Your task to perform on an android device: open app "Messenger Lite" (install if not already installed) Image 0: 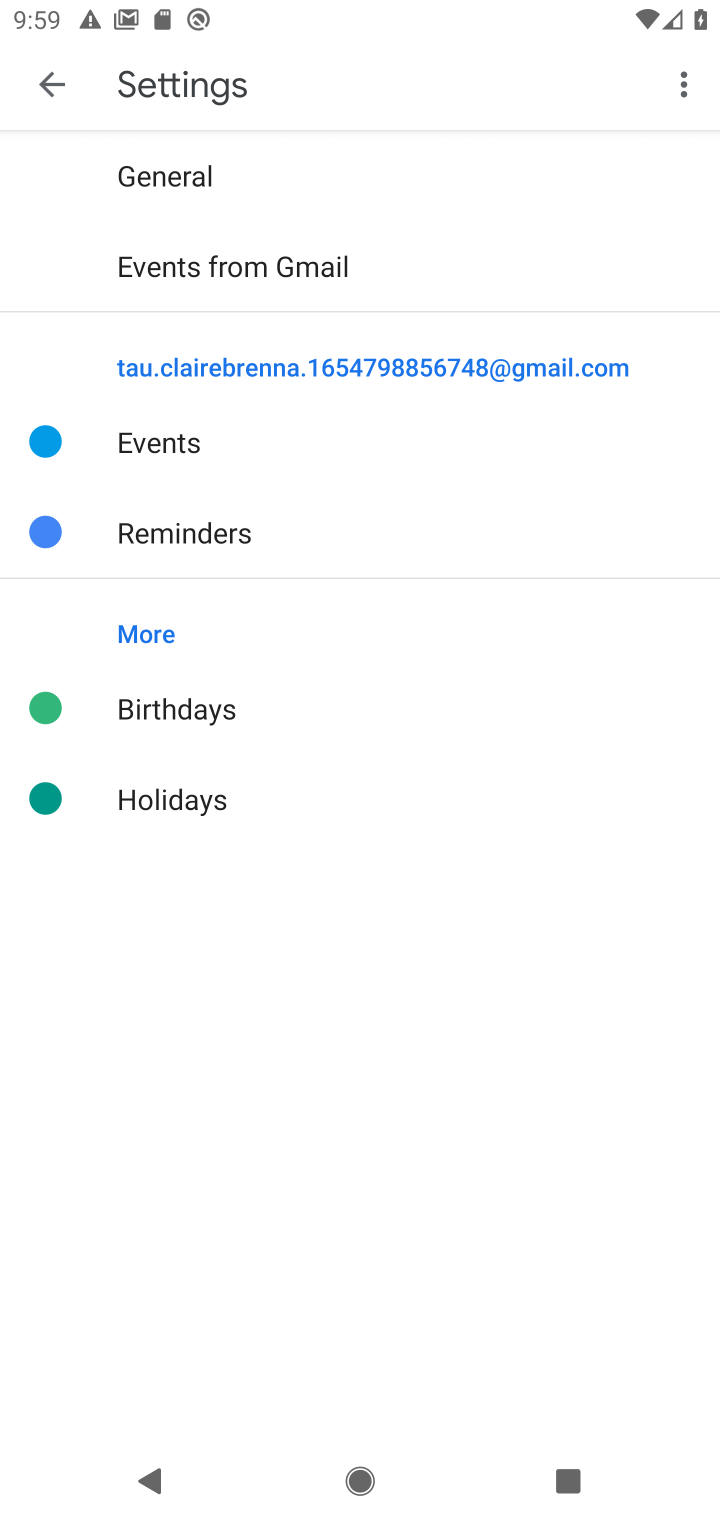
Step 0: press home button
Your task to perform on an android device: open app "Messenger Lite" (install if not already installed) Image 1: 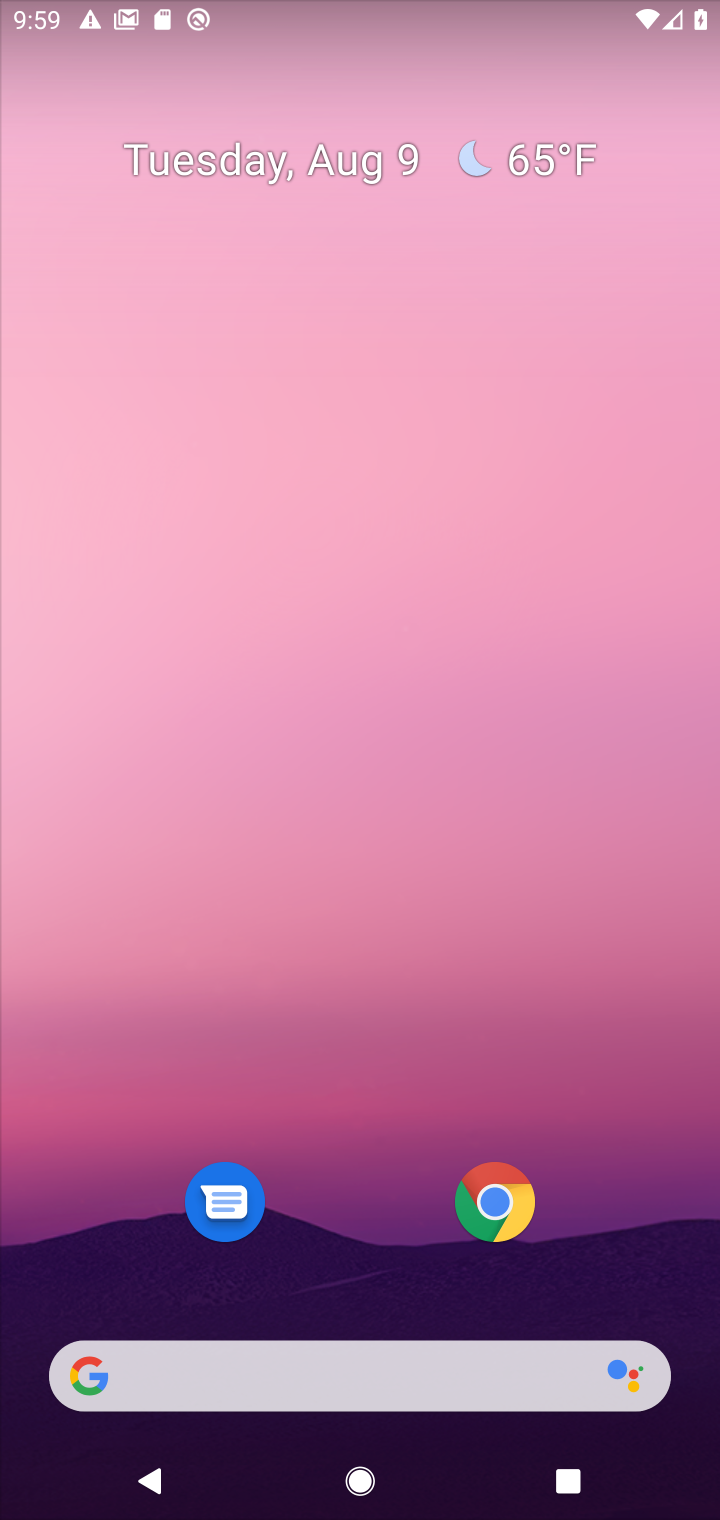
Step 1: drag from (381, 1386) to (345, 155)
Your task to perform on an android device: open app "Messenger Lite" (install if not already installed) Image 2: 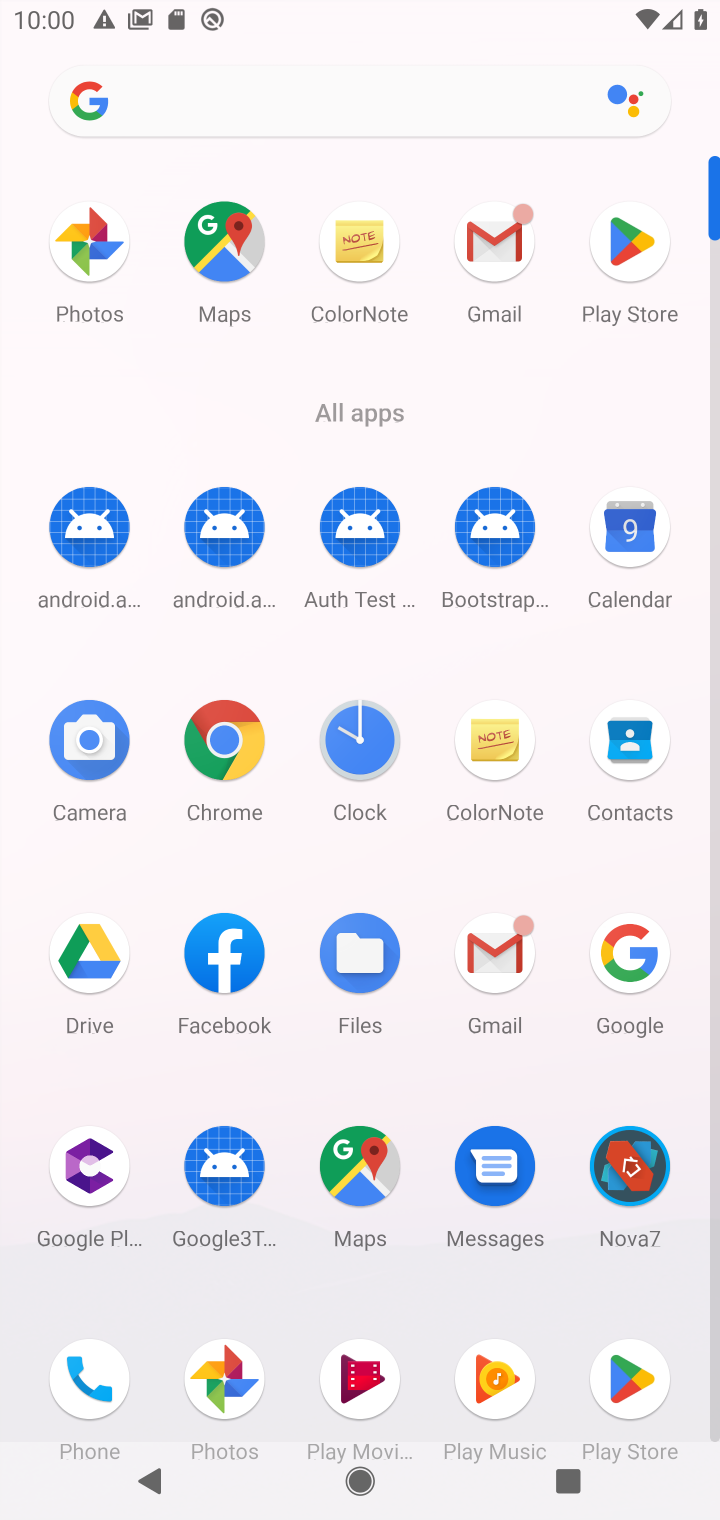
Step 2: click (605, 1373)
Your task to perform on an android device: open app "Messenger Lite" (install if not already installed) Image 3: 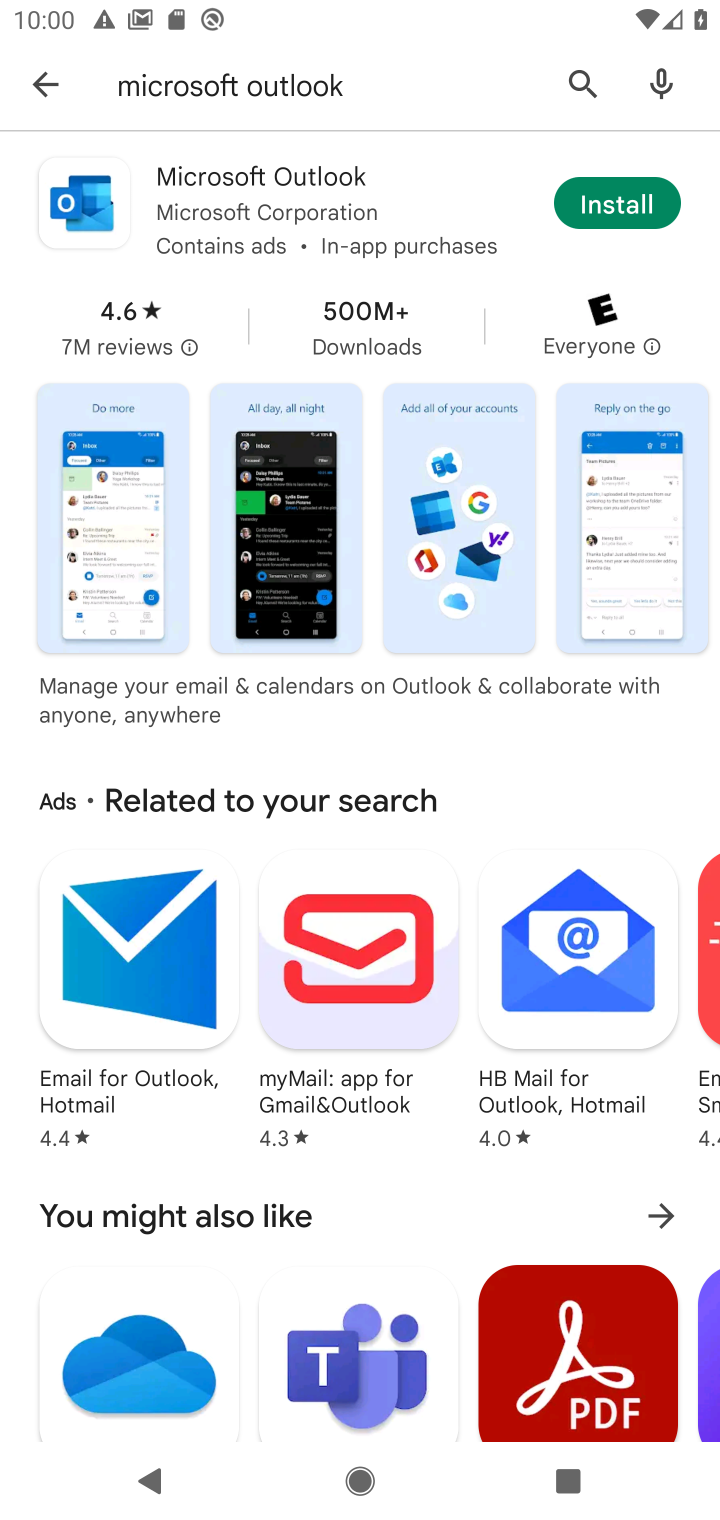
Step 3: click (578, 96)
Your task to perform on an android device: open app "Messenger Lite" (install if not already installed) Image 4: 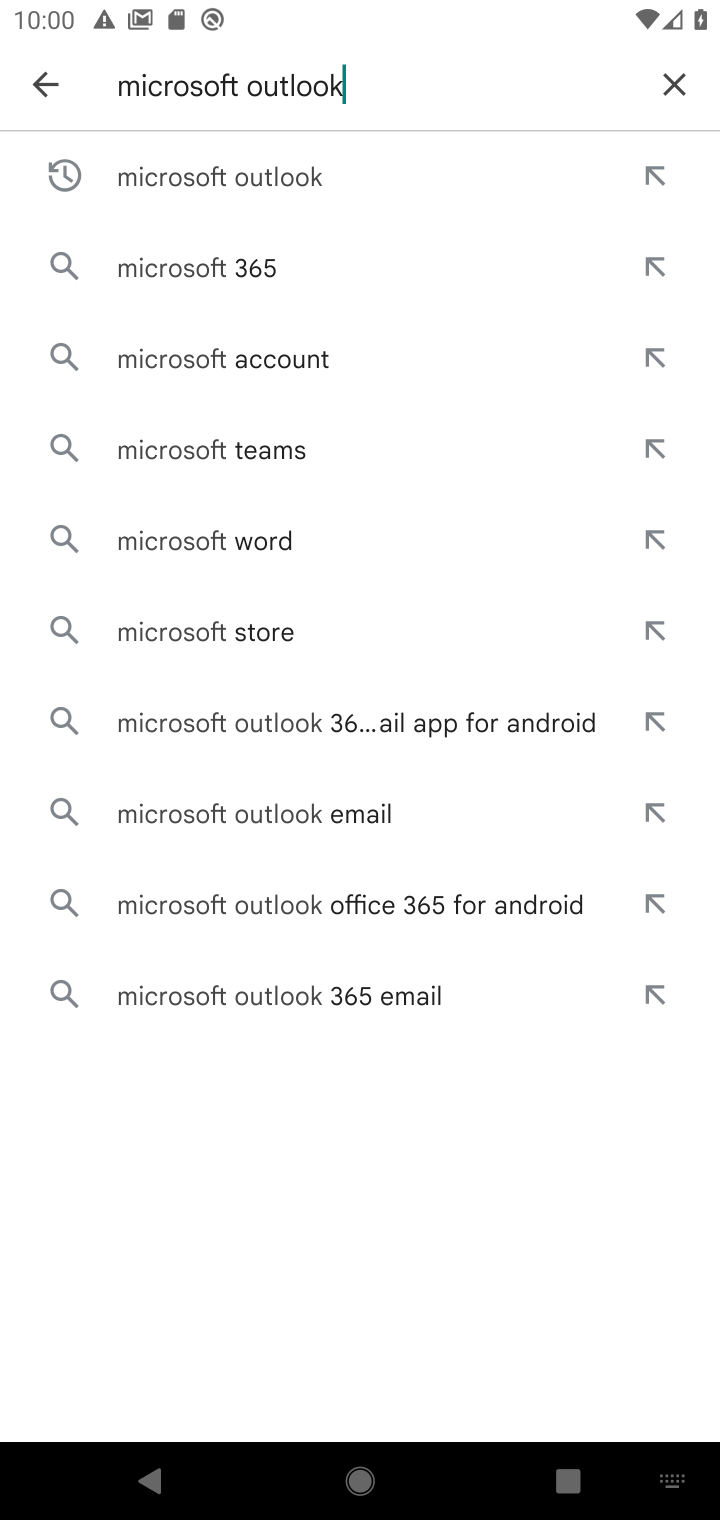
Step 4: click (676, 70)
Your task to perform on an android device: open app "Messenger Lite" (install if not already installed) Image 5: 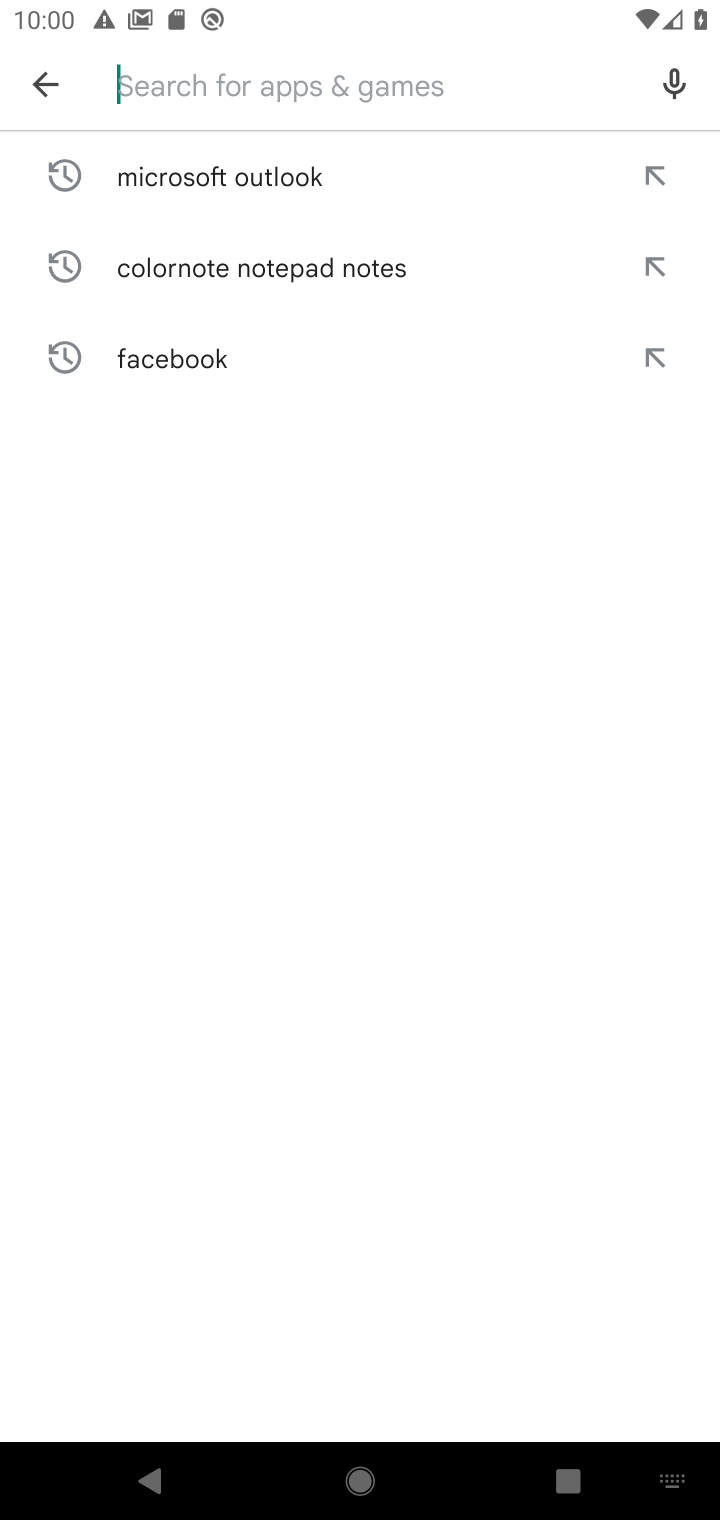
Step 5: type "Messenger Lite"
Your task to perform on an android device: open app "Messenger Lite" (install if not already installed) Image 6: 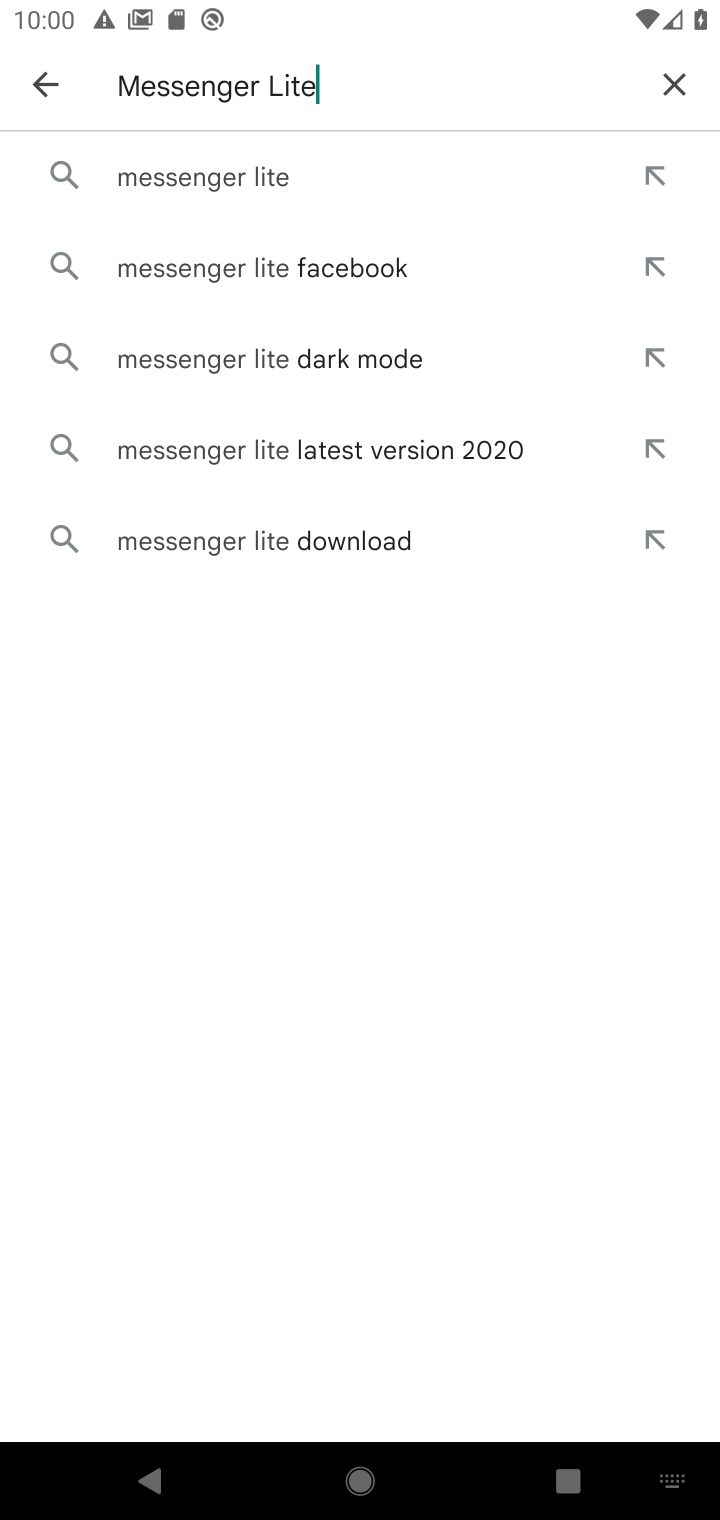
Step 6: press enter
Your task to perform on an android device: open app "Messenger Lite" (install if not already installed) Image 7: 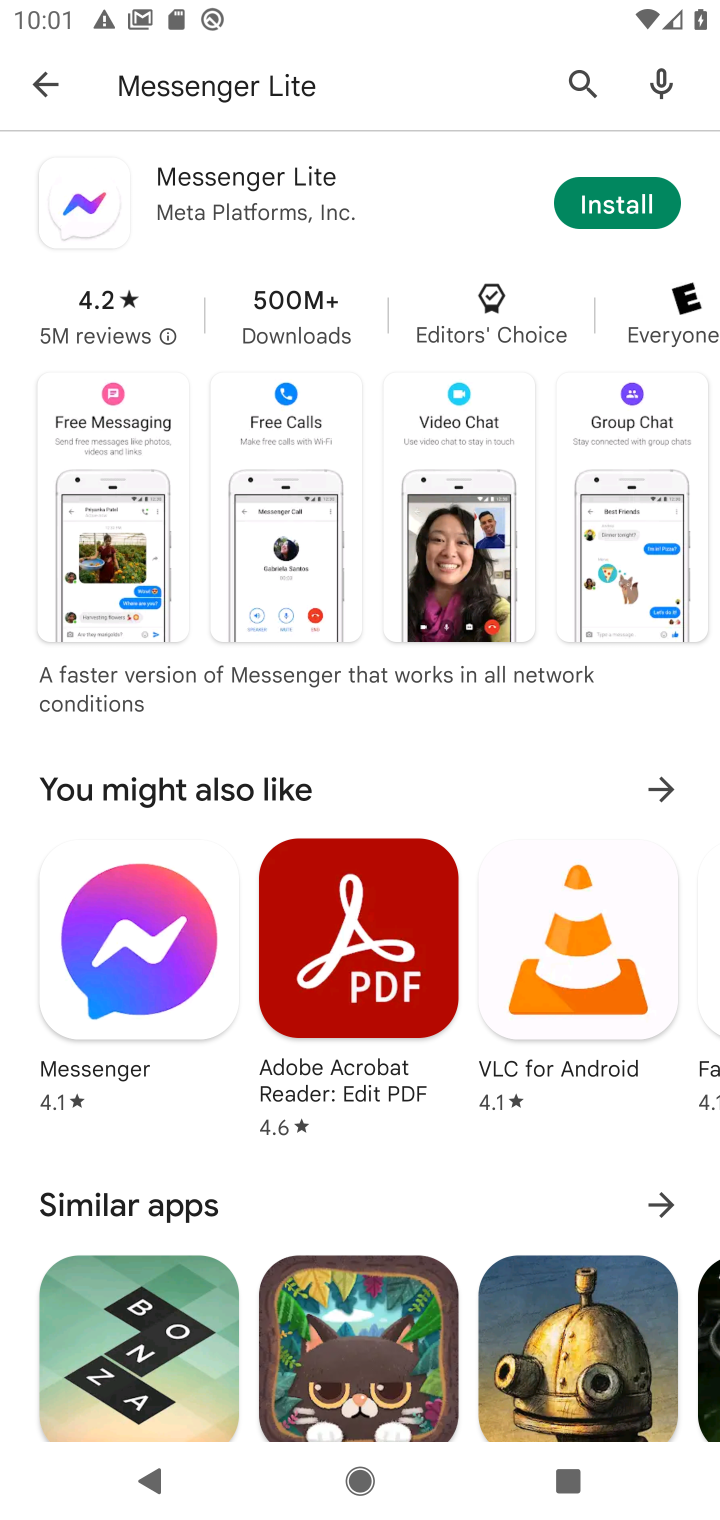
Step 7: click (644, 199)
Your task to perform on an android device: open app "Messenger Lite" (install if not already installed) Image 8: 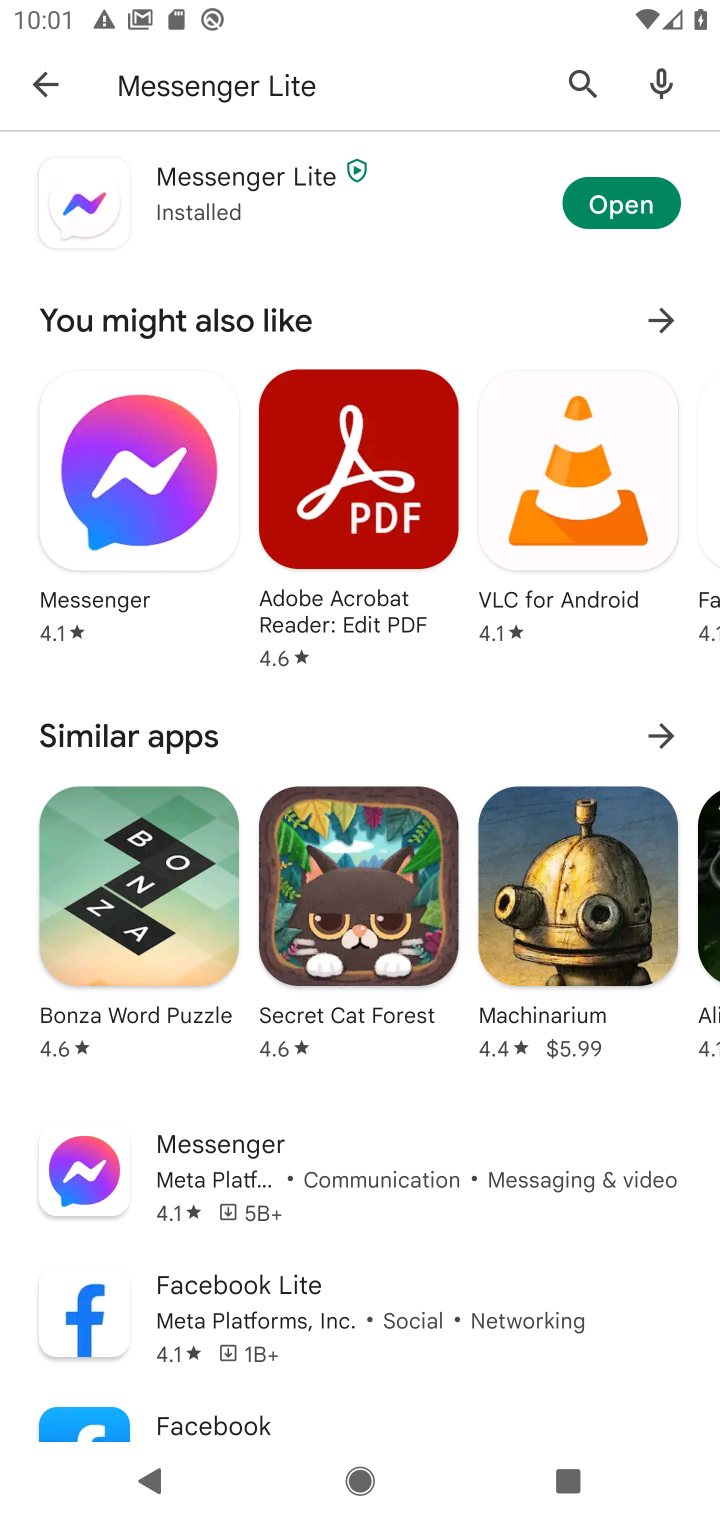
Step 8: click (612, 202)
Your task to perform on an android device: open app "Messenger Lite" (install if not already installed) Image 9: 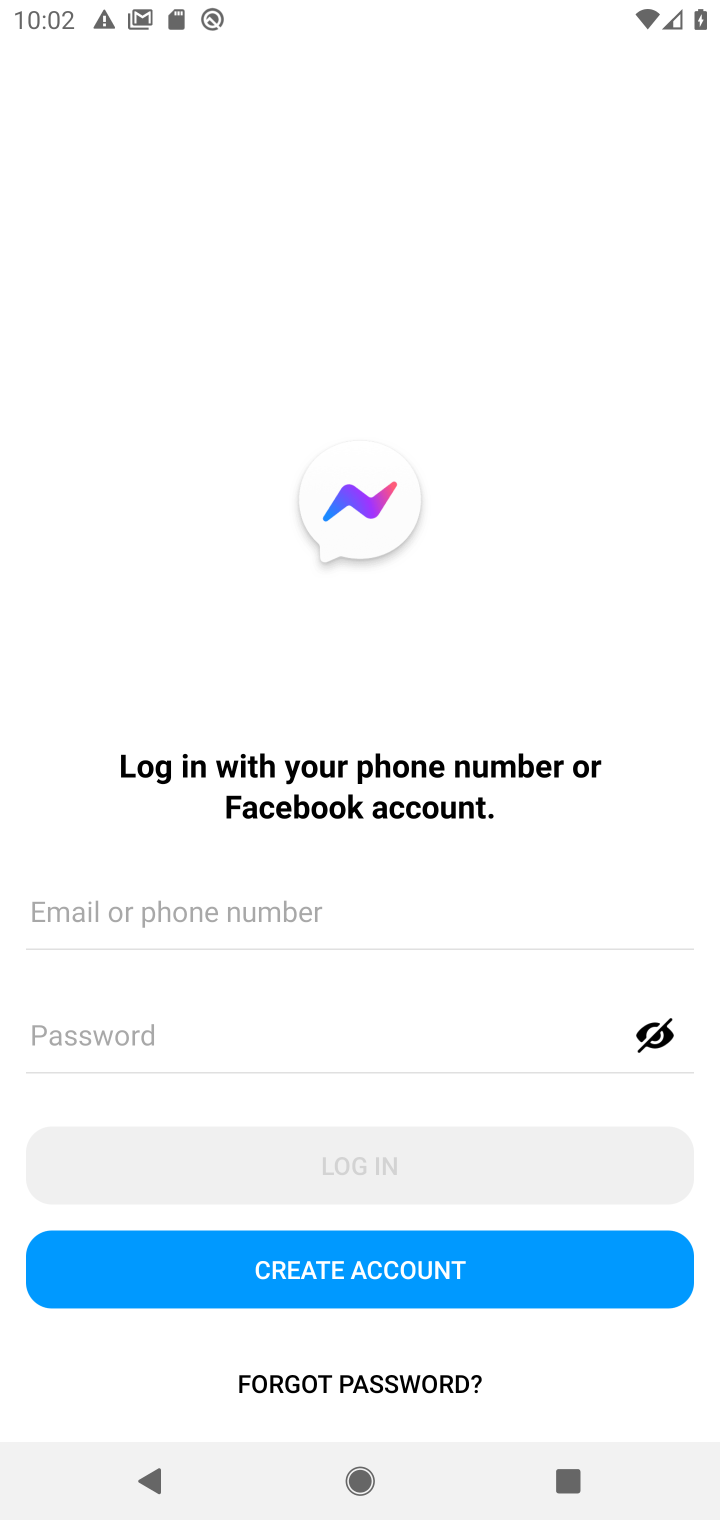
Step 9: task complete